Your task to perform on an android device: open app "Life360: Find Family & Friends" (install if not already installed) Image 0: 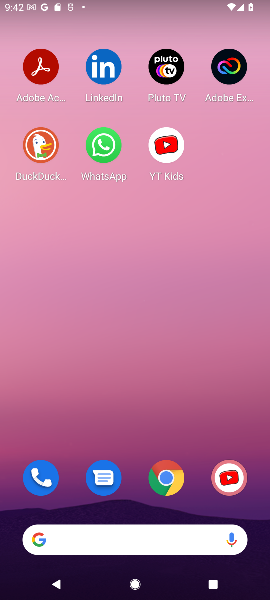
Step 0: drag from (144, 504) to (152, 46)
Your task to perform on an android device: open app "Life360: Find Family & Friends" (install if not already installed) Image 1: 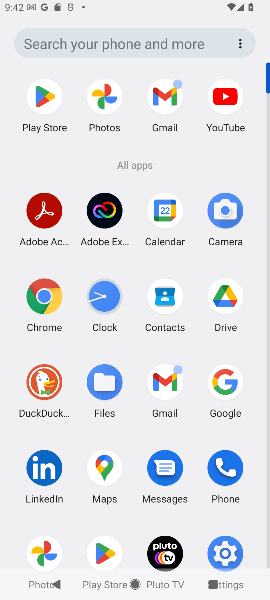
Step 1: click (40, 124)
Your task to perform on an android device: open app "Life360: Find Family & Friends" (install if not already installed) Image 2: 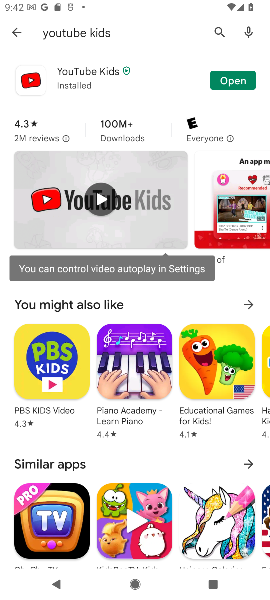
Step 2: click (208, 25)
Your task to perform on an android device: open app "Life360: Find Family & Friends" (install if not already installed) Image 3: 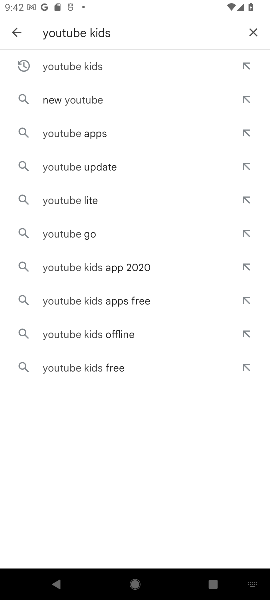
Step 3: click (260, 41)
Your task to perform on an android device: open app "Life360: Find Family & Friends" (install if not already installed) Image 4: 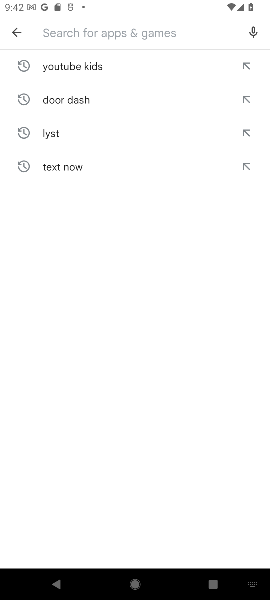
Step 4: type "life 360"
Your task to perform on an android device: open app "Life360: Find Family & Friends" (install if not already installed) Image 5: 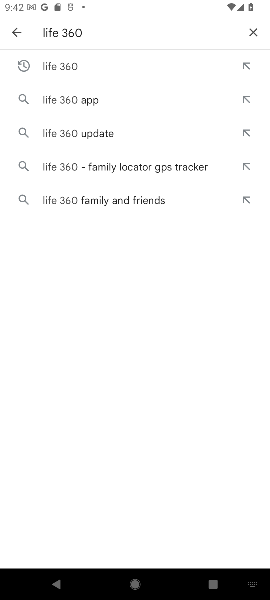
Step 5: click (115, 75)
Your task to perform on an android device: open app "Life360: Find Family & Friends" (install if not already installed) Image 6: 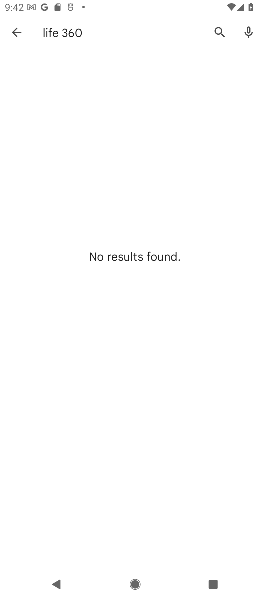
Step 6: task complete